Your task to perform on an android device: search for starred emails in the gmail app Image 0: 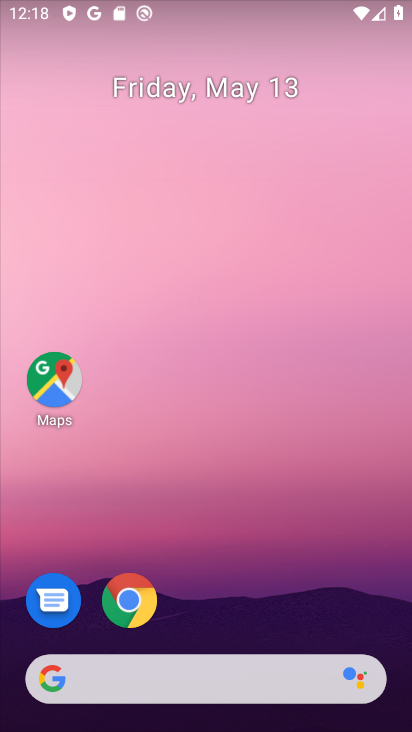
Step 0: click (230, 288)
Your task to perform on an android device: search for starred emails in the gmail app Image 1: 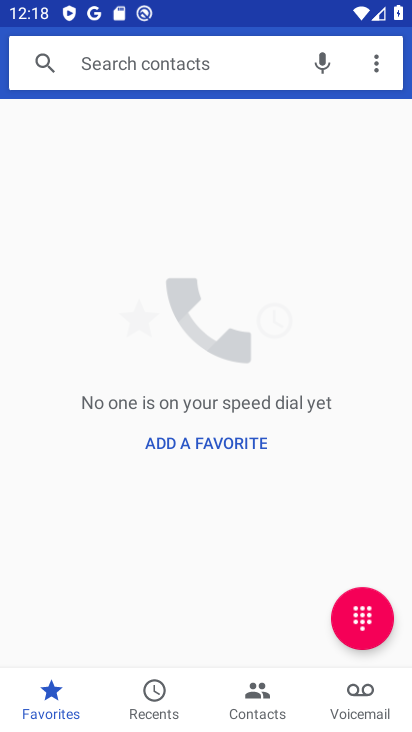
Step 1: drag from (176, 614) to (225, 213)
Your task to perform on an android device: search for starred emails in the gmail app Image 2: 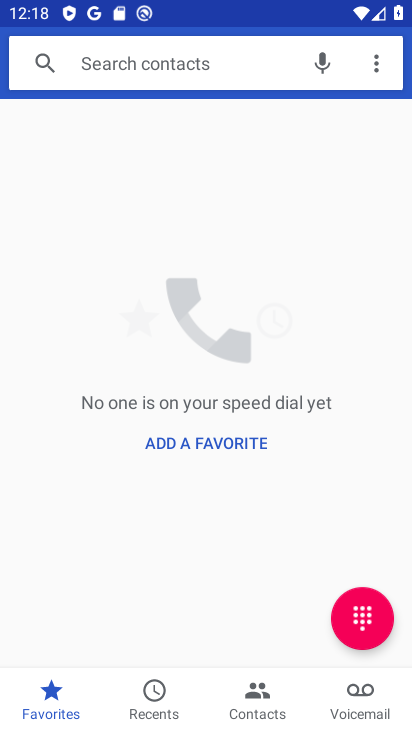
Step 2: click (347, 707)
Your task to perform on an android device: search for starred emails in the gmail app Image 3: 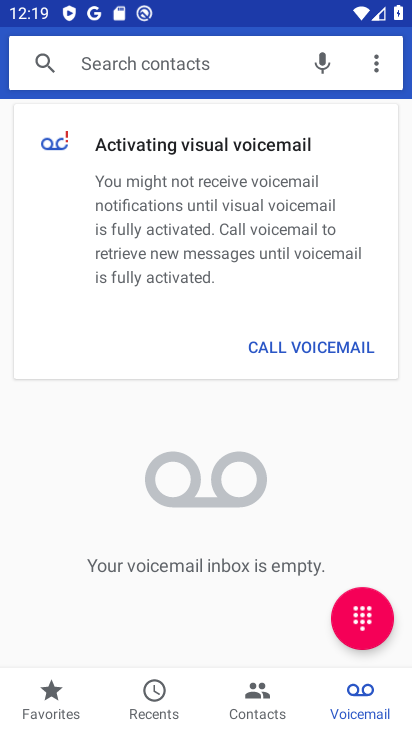
Step 3: press home button
Your task to perform on an android device: search for starred emails in the gmail app Image 4: 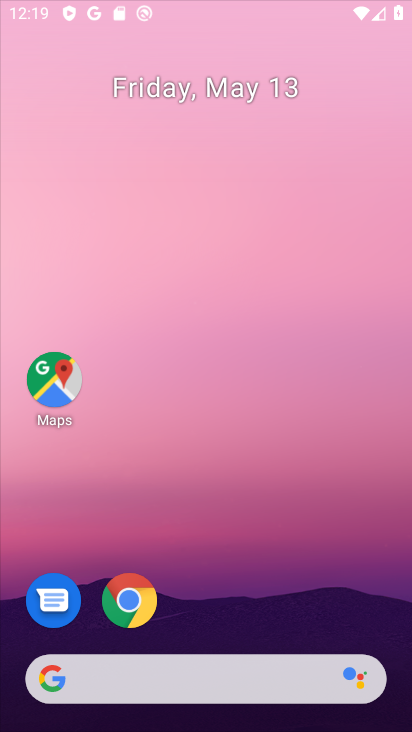
Step 4: drag from (210, 596) to (271, 269)
Your task to perform on an android device: search for starred emails in the gmail app Image 5: 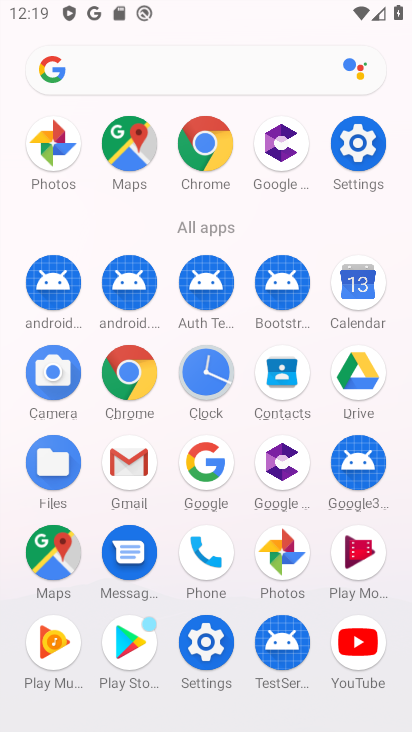
Step 5: click (142, 449)
Your task to perform on an android device: search for starred emails in the gmail app Image 6: 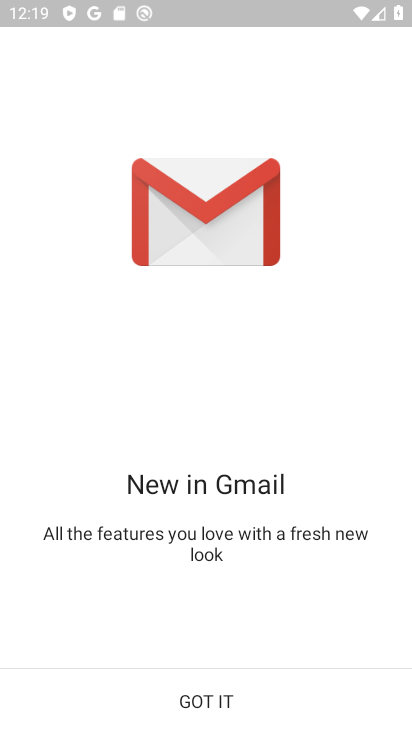
Step 6: drag from (210, 641) to (234, 432)
Your task to perform on an android device: search for starred emails in the gmail app Image 7: 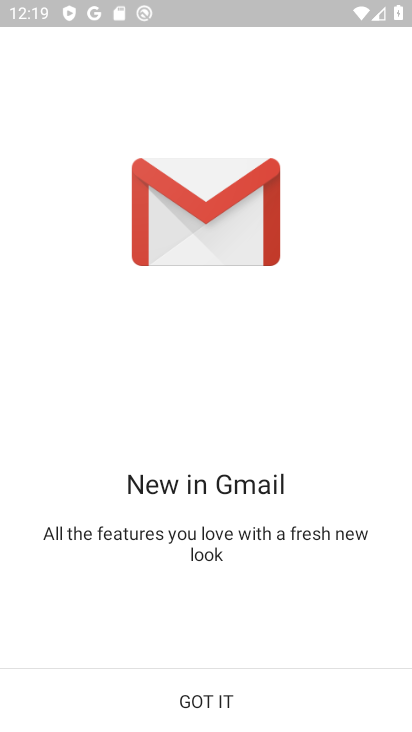
Step 7: press home button
Your task to perform on an android device: search for starred emails in the gmail app Image 8: 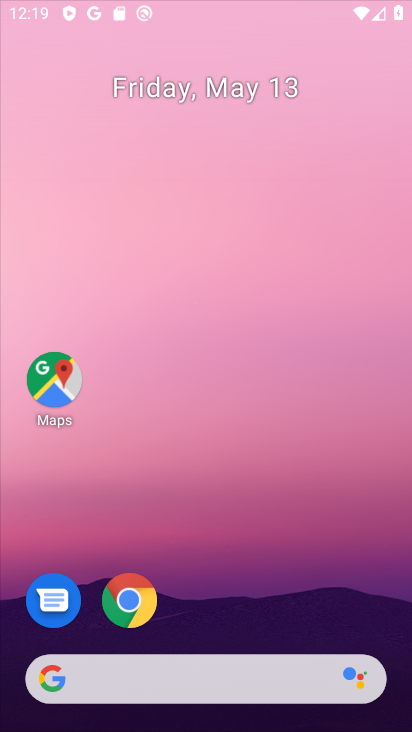
Step 8: drag from (247, 605) to (292, 323)
Your task to perform on an android device: search for starred emails in the gmail app Image 9: 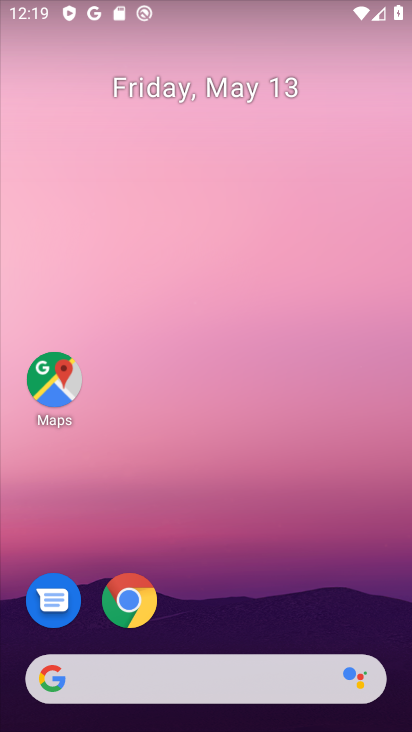
Step 9: drag from (237, 610) to (242, 21)
Your task to perform on an android device: search for starred emails in the gmail app Image 10: 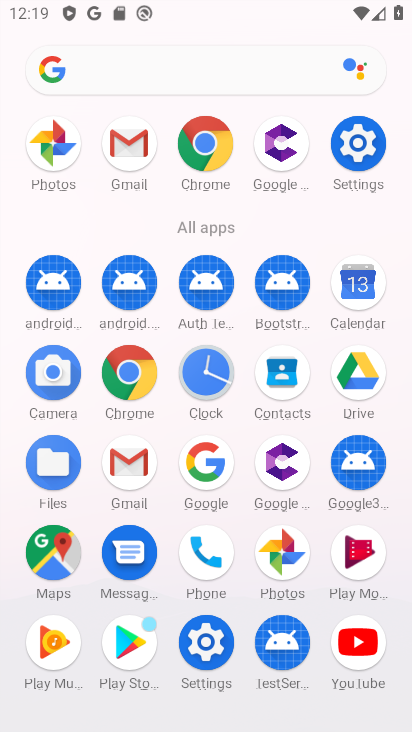
Step 10: click (126, 448)
Your task to perform on an android device: search for starred emails in the gmail app Image 11: 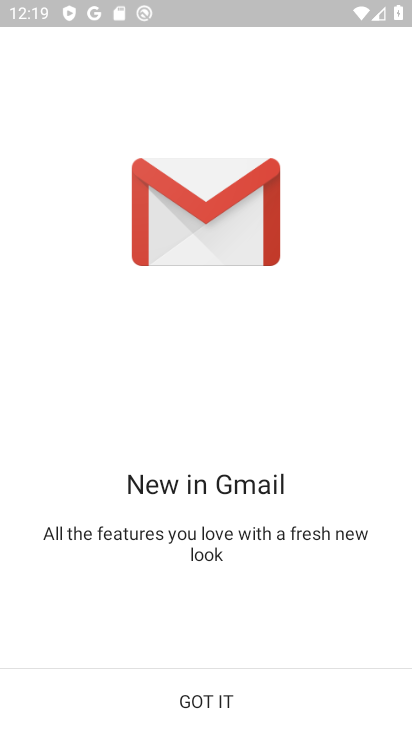
Step 11: drag from (238, 650) to (252, 261)
Your task to perform on an android device: search for starred emails in the gmail app Image 12: 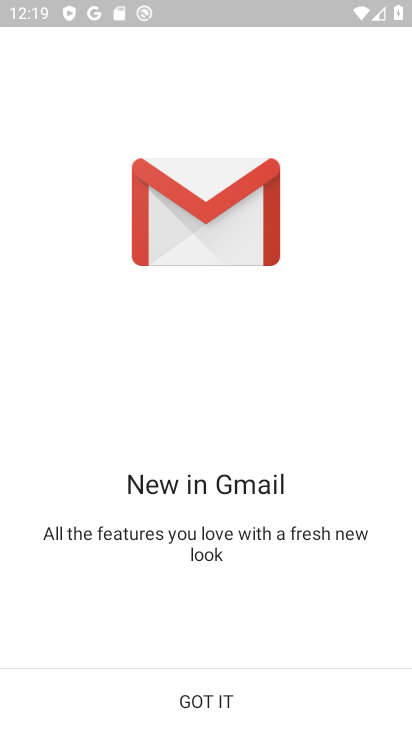
Step 12: click (192, 707)
Your task to perform on an android device: search for starred emails in the gmail app Image 13: 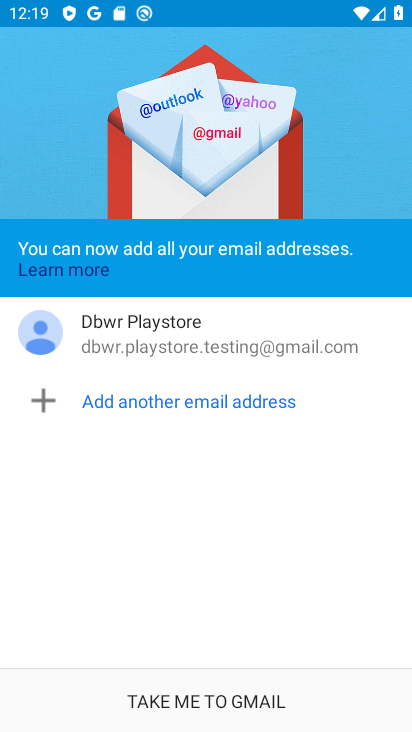
Step 13: click (201, 693)
Your task to perform on an android device: search for starred emails in the gmail app Image 14: 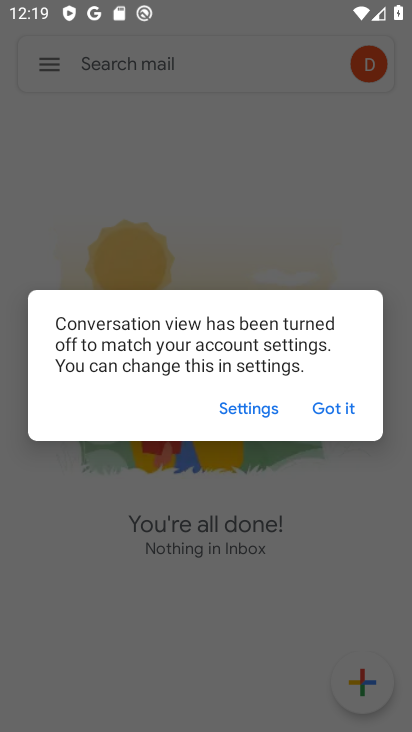
Step 14: click (326, 409)
Your task to perform on an android device: search for starred emails in the gmail app Image 15: 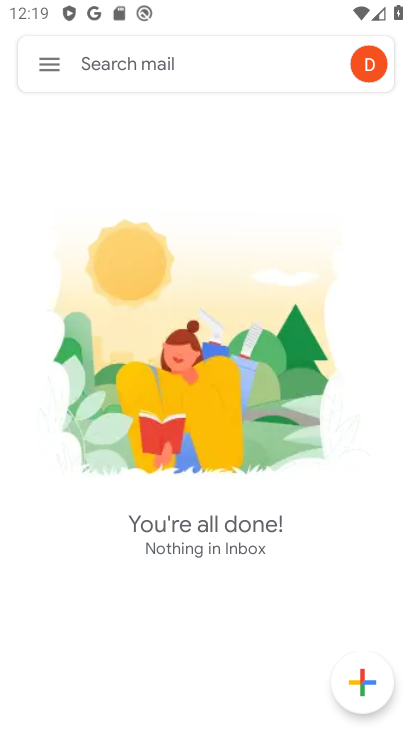
Step 15: click (66, 61)
Your task to perform on an android device: search for starred emails in the gmail app Image 16: 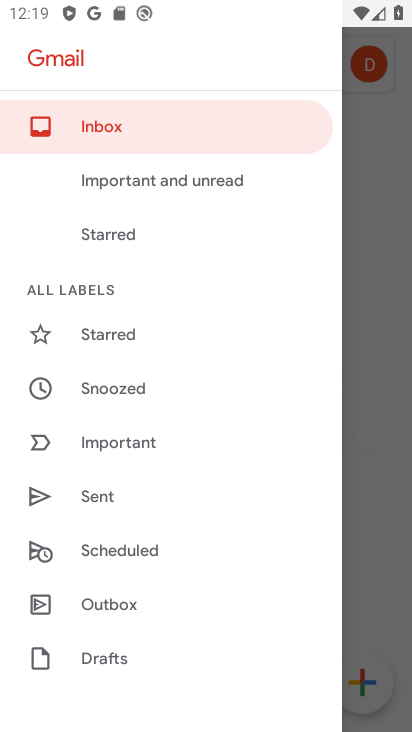
Step 16: click (140, 352)
Your task to perform on an android device: search for starred emails in the gmail app Image 17: 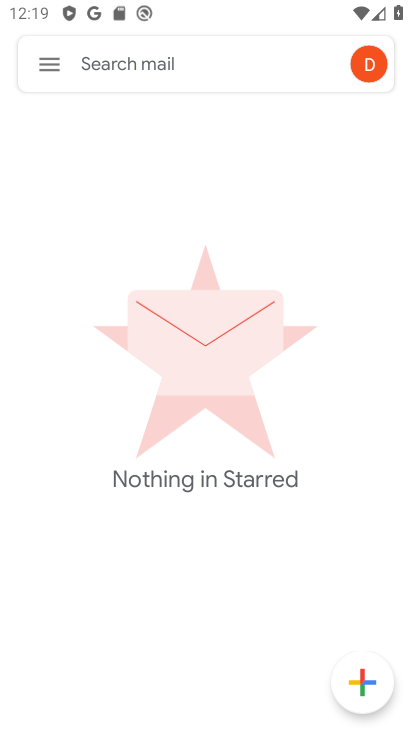
Step 17: task complete